Your task to perform on an android device: change notifications settings Image 0: 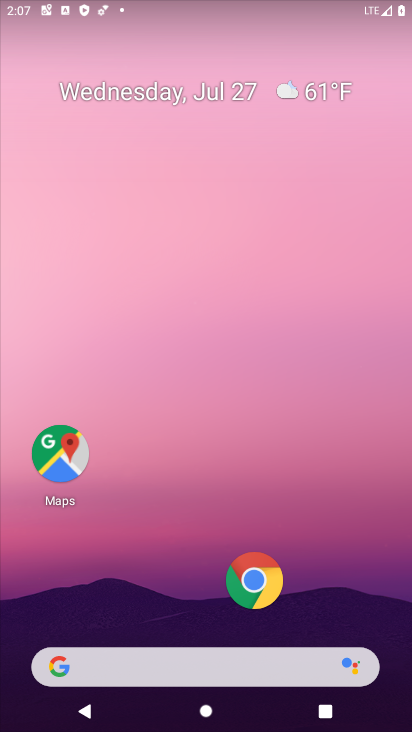
Step 0: drag from (203, 623) to (197, 232)
Your task to perform on an android device: change notifications settings Image 1: 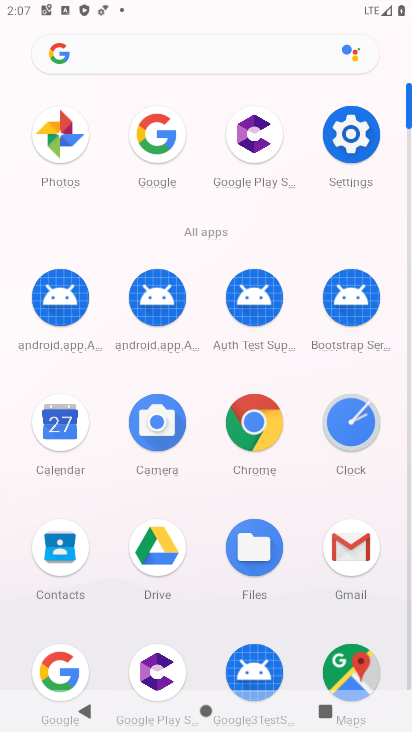
Step 1: click (362, 132)
Your task to perform on an android device: change notifications settings Image 2: 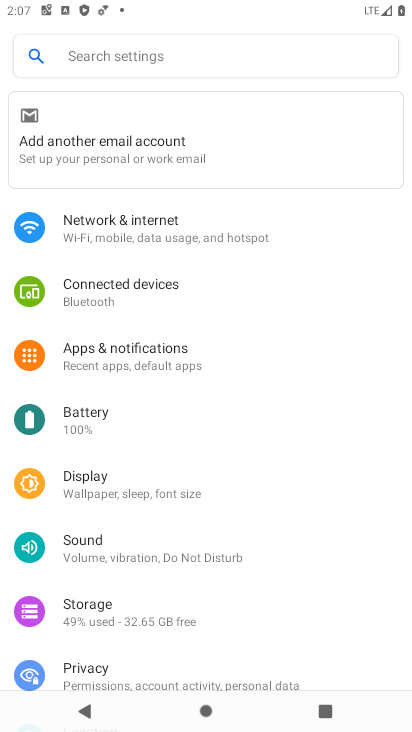
Step 2: click (175, 353)
Your task to perform on an android device: change notifications settings Image 3: 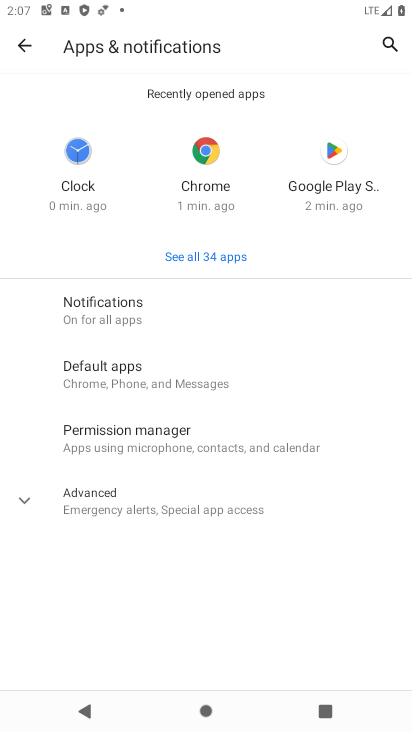
Step 3: click (123, 320)
Your task to perform on an android device: change notifications settings Image 4: 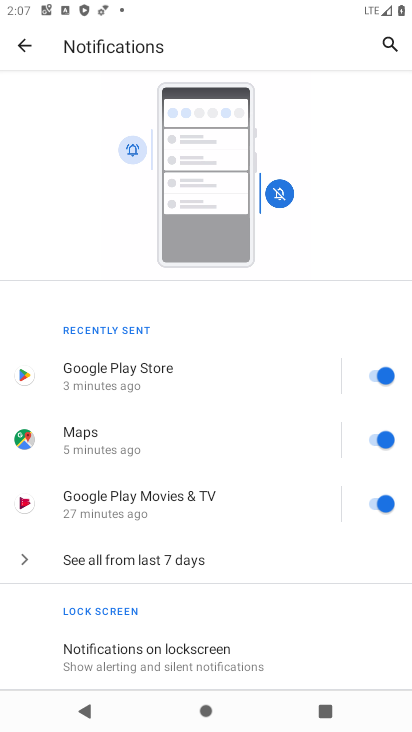
Step 4: click (209, 653)
Your task to perform on an android device: change notifications settings Image 5: 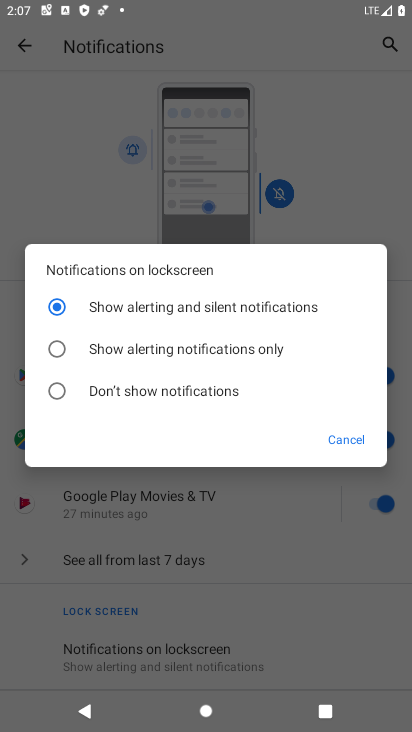
Step 5: click (208, 392)
Your task to perform on an android device: change notifications settings Image 6: 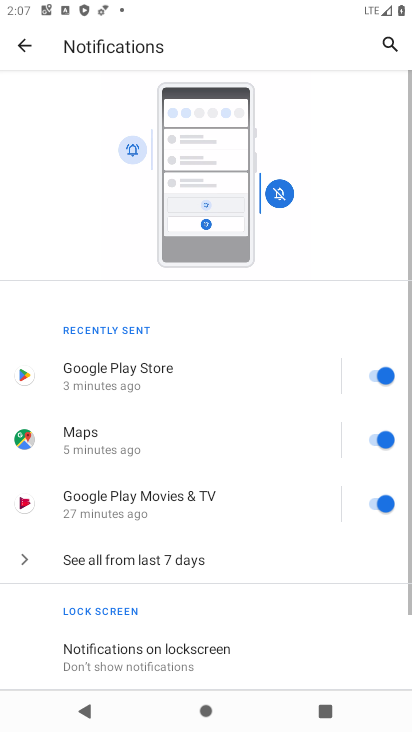
Step 6: task complete